Your task to perform on an android device: stop showing notifications on the lock screen Image 0: 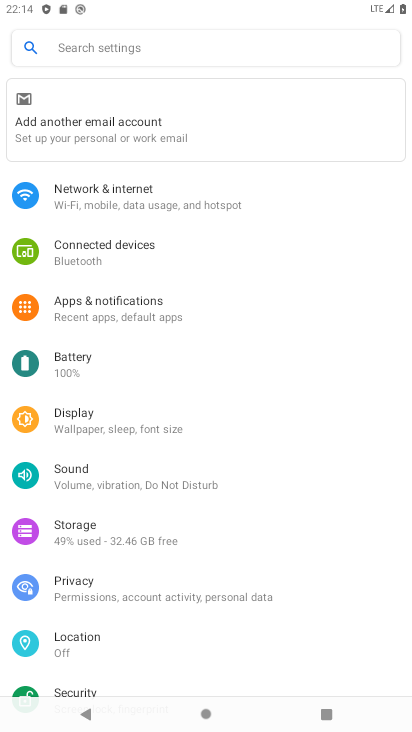
Step 0: press home button
Your task to perform on an android device: stop showing notifications on the lock screen Image 1: 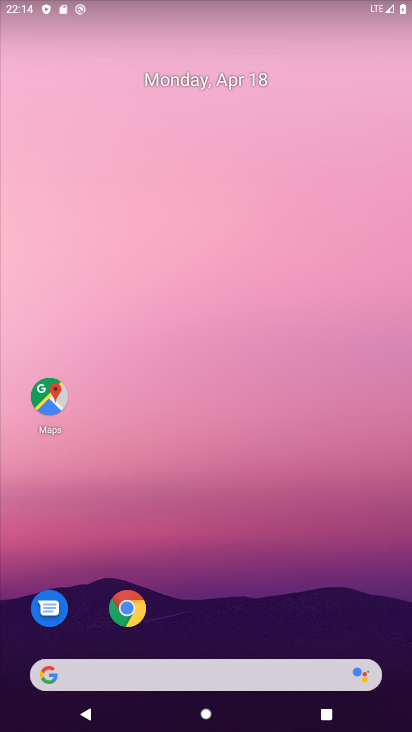
Step 1: drag from (220, 539) to (195, 26)
Your task to perform on an android device: stop showing notifications on the lock screen Image 2: 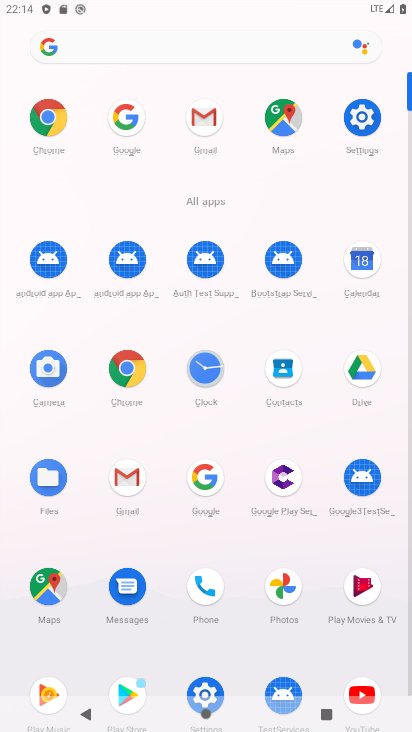
Step 2: click (359, 124)
Your task to perform on an android device: stop showing notifications on the lock screen Image 3: 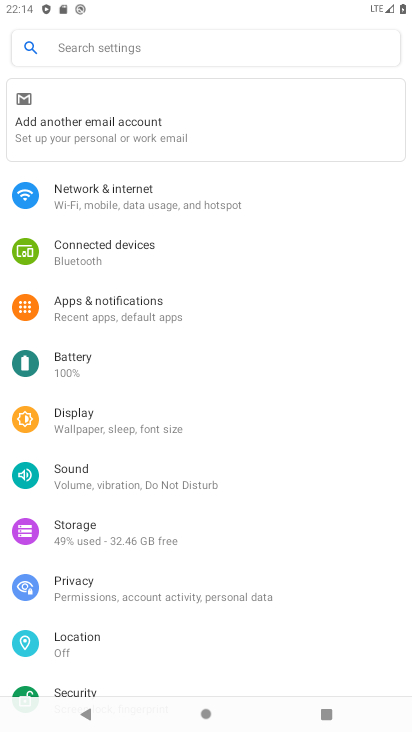
Step 3: click (111, 309)
Your task to perform on an android device: stop showing notifications on the lock screen Image 4: 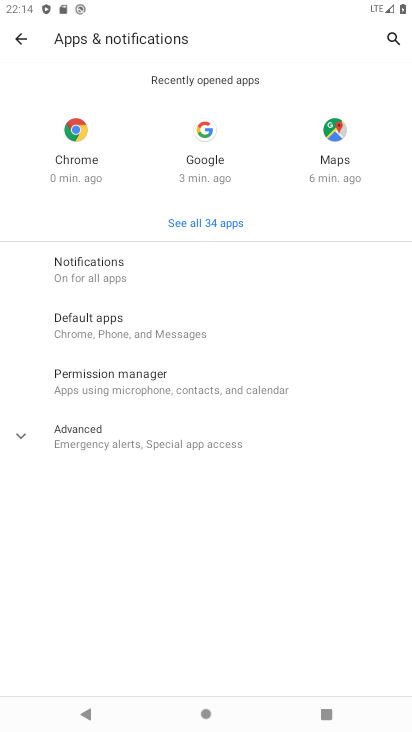
Step 4: click (127, 276)
Your task to perform on an android device: stop showing notifications on the lock screen Image 5: 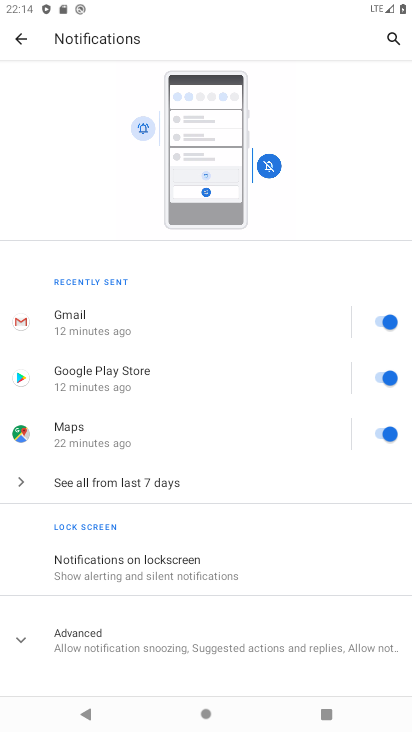
Step 5: click (182, 572)
Your task to perform on an android device: stop showing notifications on the lock screen Image 6: 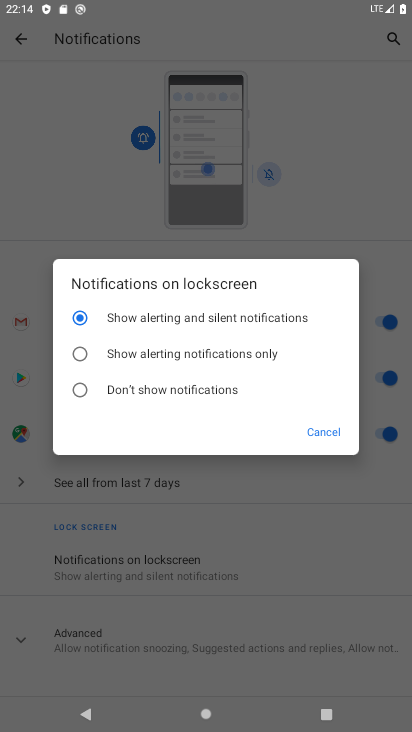
Step 6: task complete